Your task to perform on an android device: turn off improve location accuracy Image 0: 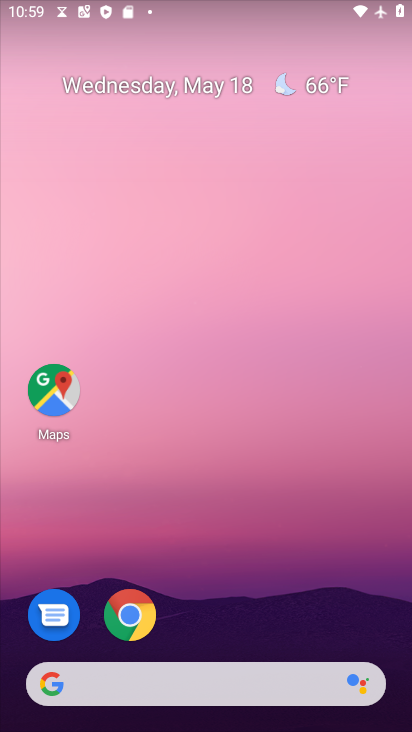
Step 0: drag from (217, 583) to (217, 26)
Your task to perform on an android device: turn off improve location accuracy Image 1: 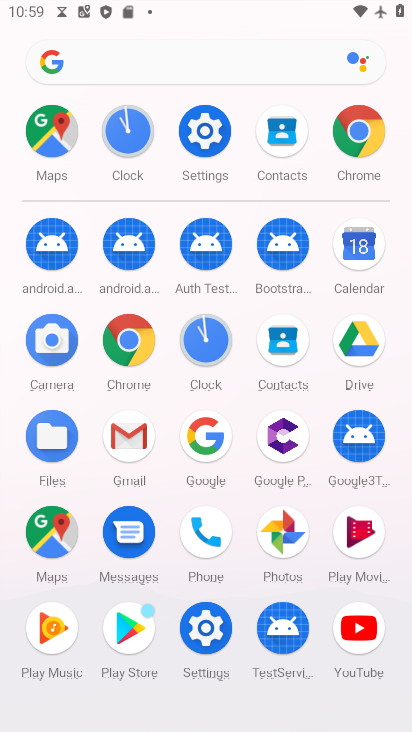
Step 1: click (206, 628)
Your task to perform on an android device: turn off improve location accuracy Image 2: 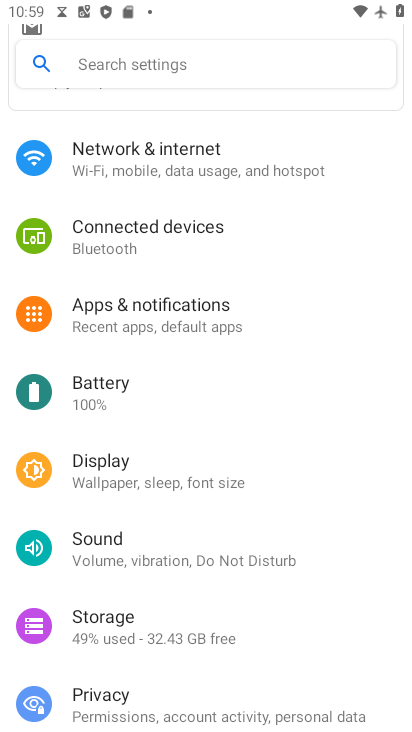
Step 2: drag from (219, 597) to (268, 160)
Your task to perform on an android device: turn off improve location accuracy Image 3: 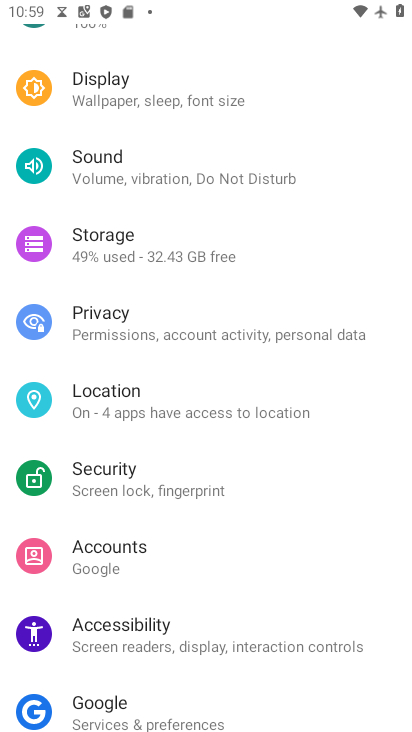
Step 3: click (157, 396)
Your task to perform on an android device: turn off improve location accuracy Image 4: 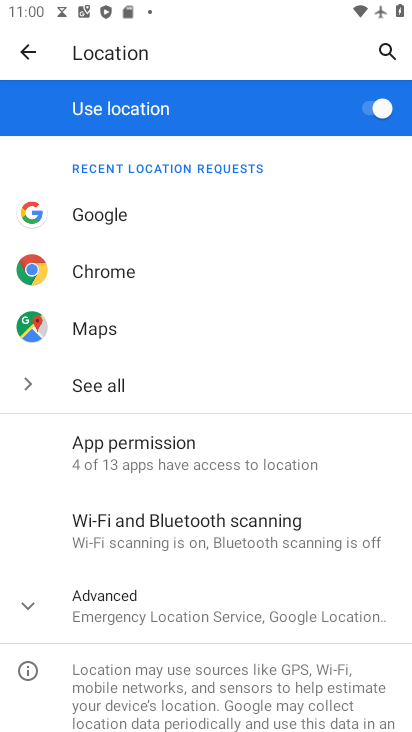
Step 4: drag from (213, 519) to (243, 227)
Your task to perform on an android device: turn off improve location accuracy Image 5: 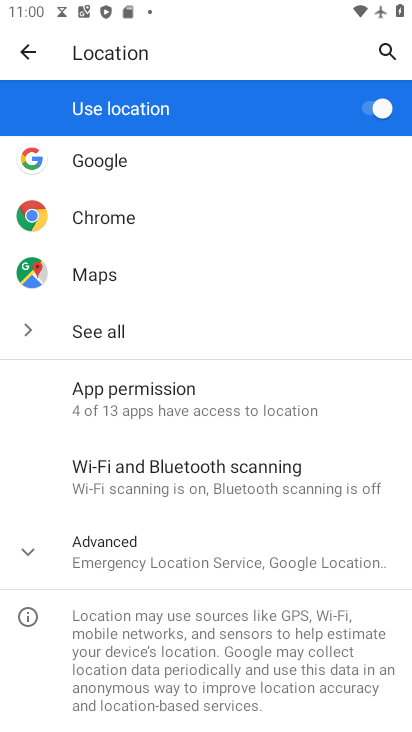
Step 5: click (70, 557)
Your task to perform on an android device: turn off improve location accuracy Image 6: 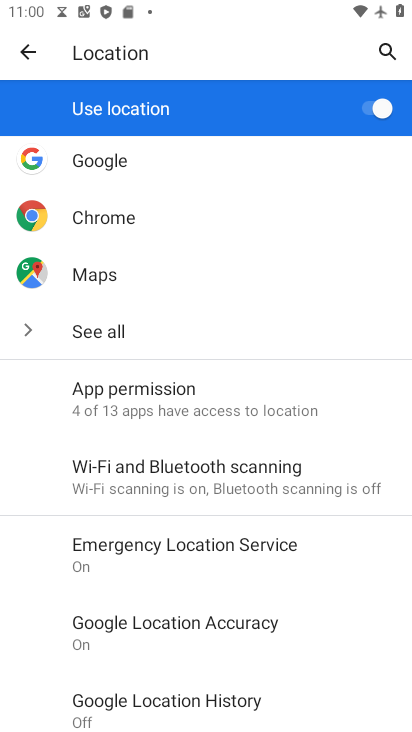
Step 6: click (257, 619)
Your task to perform on an android device: turn off improve location accuracy Image 7: 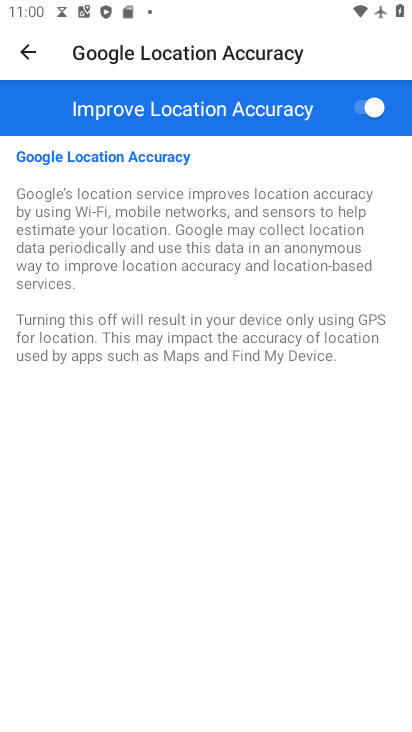
Step 7: click (371, 108)
Your task to perform on an android device: turn off improve location accuracy Image 8: 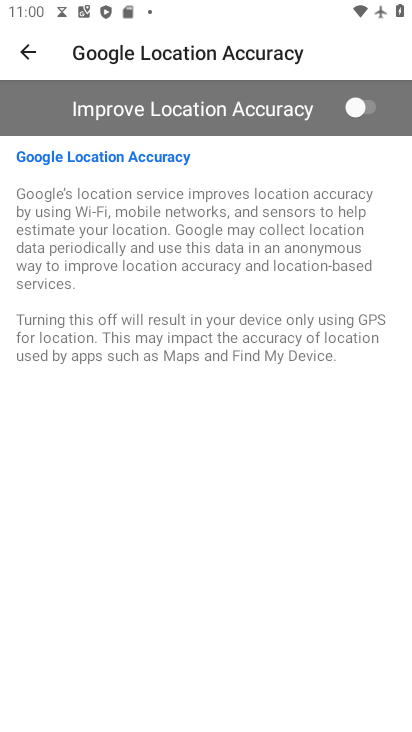
Step 8: task complete